Your task to perform on an android device: uninstall "Pandora - Music & Podcasts" Image 0: 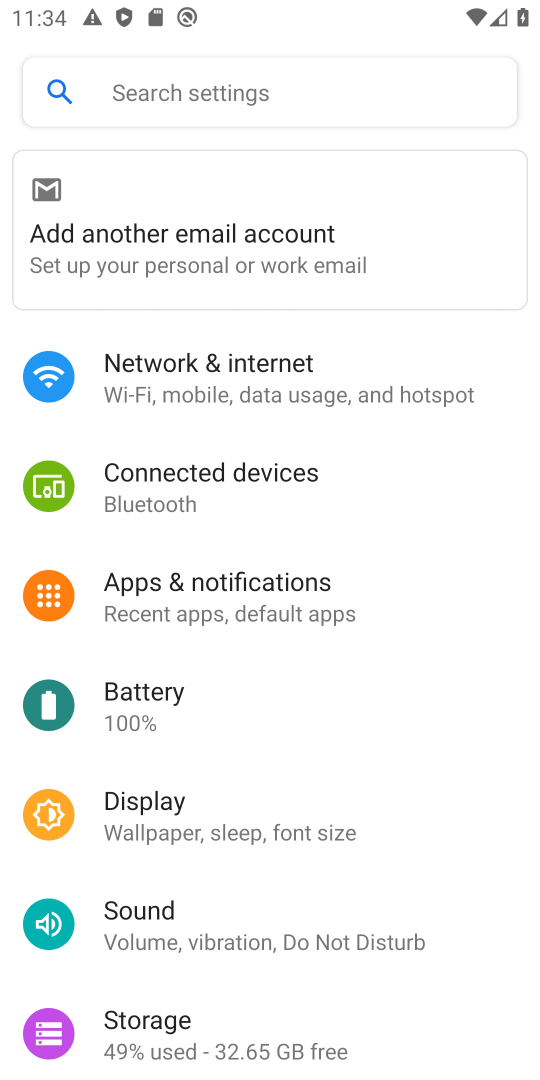
Step 0: press back button
Your task to perform on an android device: uninstall "Pandora - Music & Podcasts" Image 1: 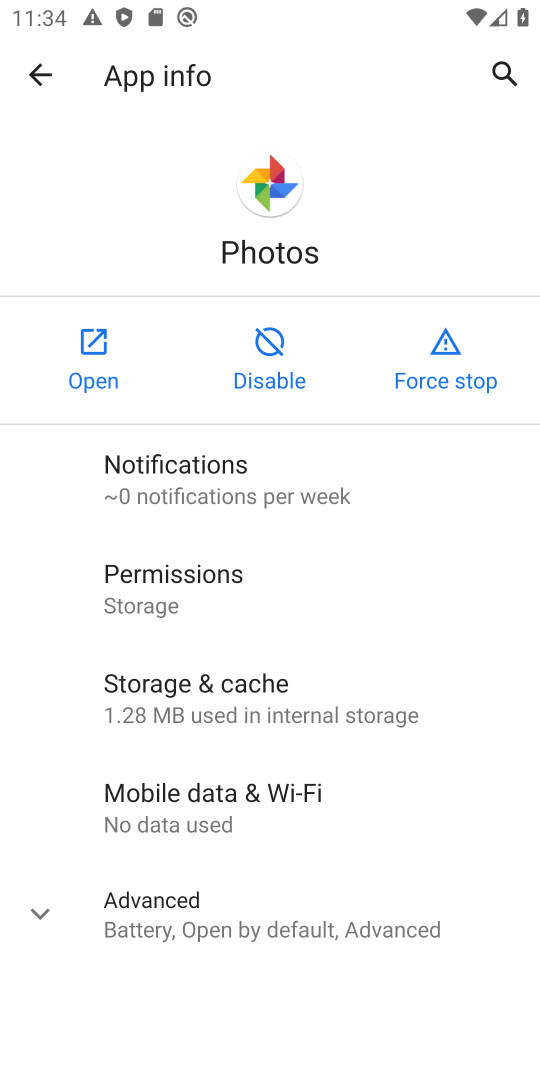
Step 1: press home button
Your task to perform on an android device: uninstall "Pandora - Music & Podcasts" Image 2: 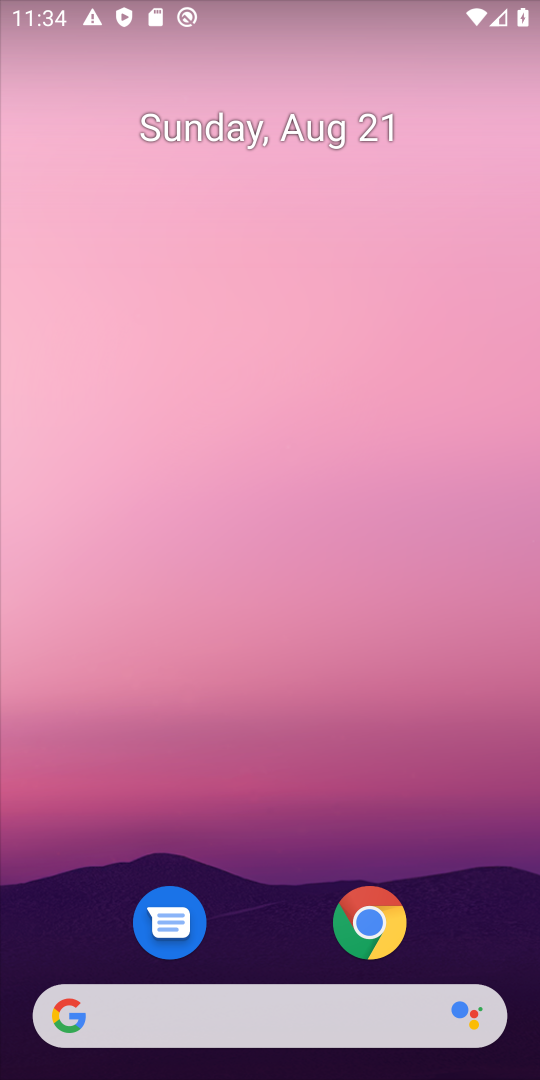
Step 2: drag from (297, 975) to (205, 183)
Your task to perform on an android device: uninstall "Pandora - Music & Podcasts" Image 3: 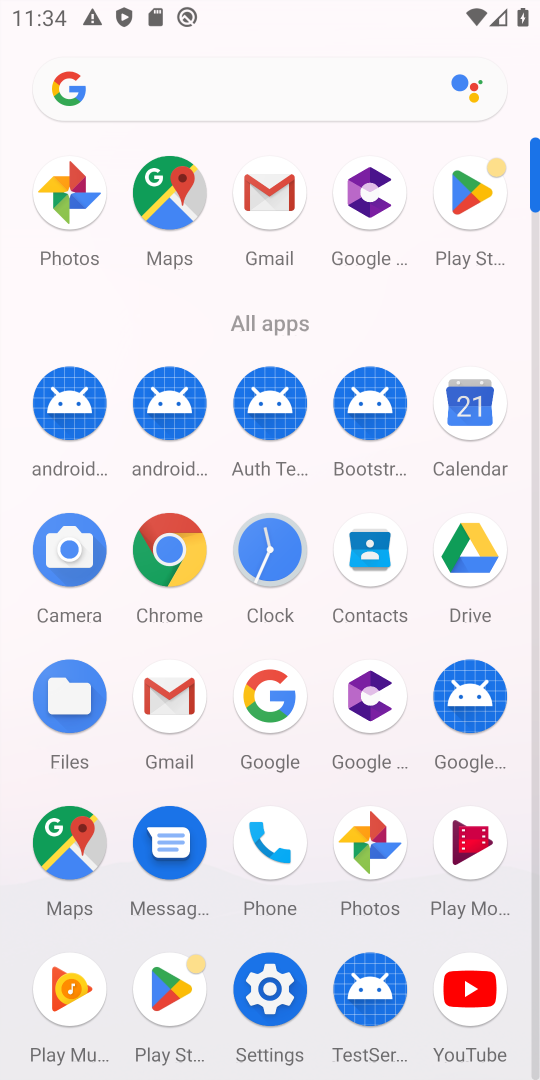
Step 3: click (456, 228)
Your task to perform on an android device: uninstall "Pandora - Music & Podcasts" Image 4: 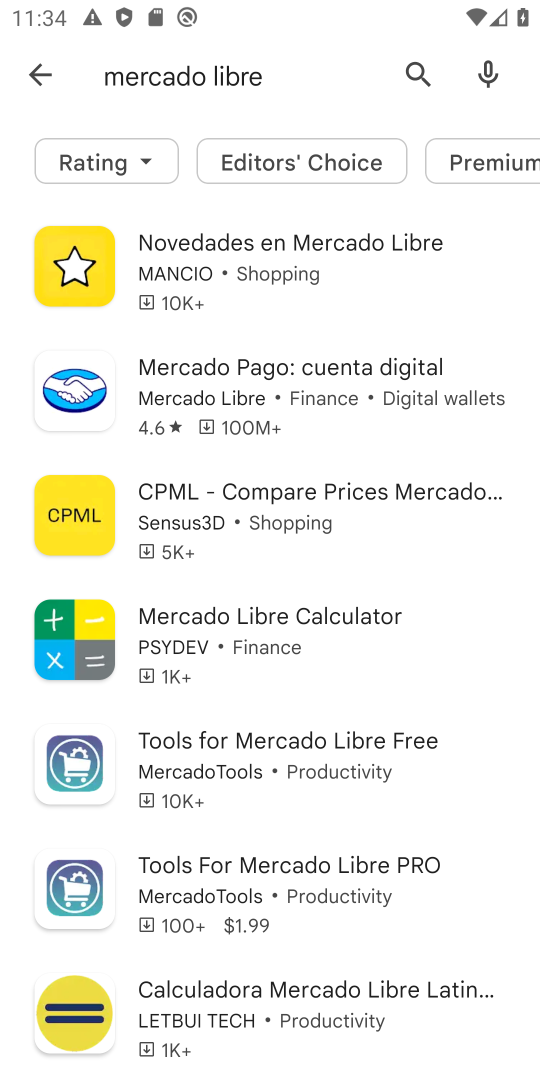
Step 4: click (44, 70)
Your task to perform on an android device: uninstall "Pandora - Music & Podcasts" Image 5: 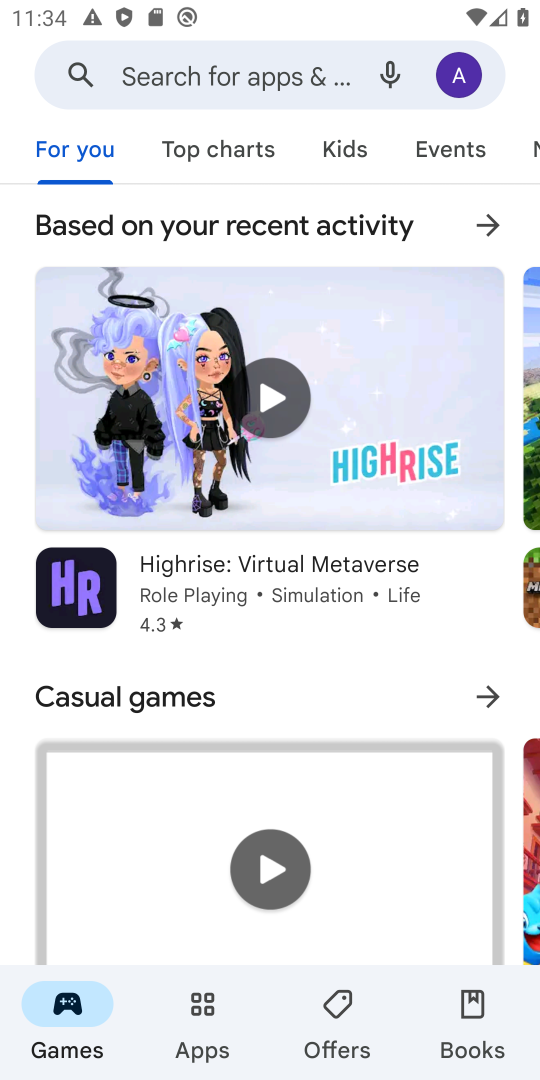
Step 5: click (230, 93)
Your task to perform on an android device: uninstall "Pandora - Music & Podcasts" Image 6: 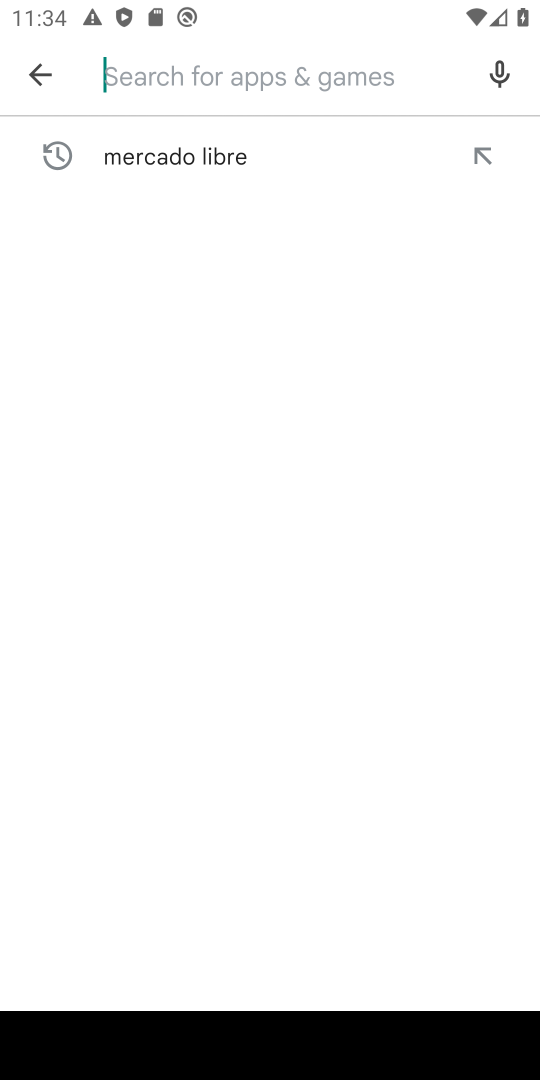
Step 6: type "Pandora - Music & Podcasts"
Your task to perform on an android device: uninstall "Pandora - Music & Podcasts" Image 7: 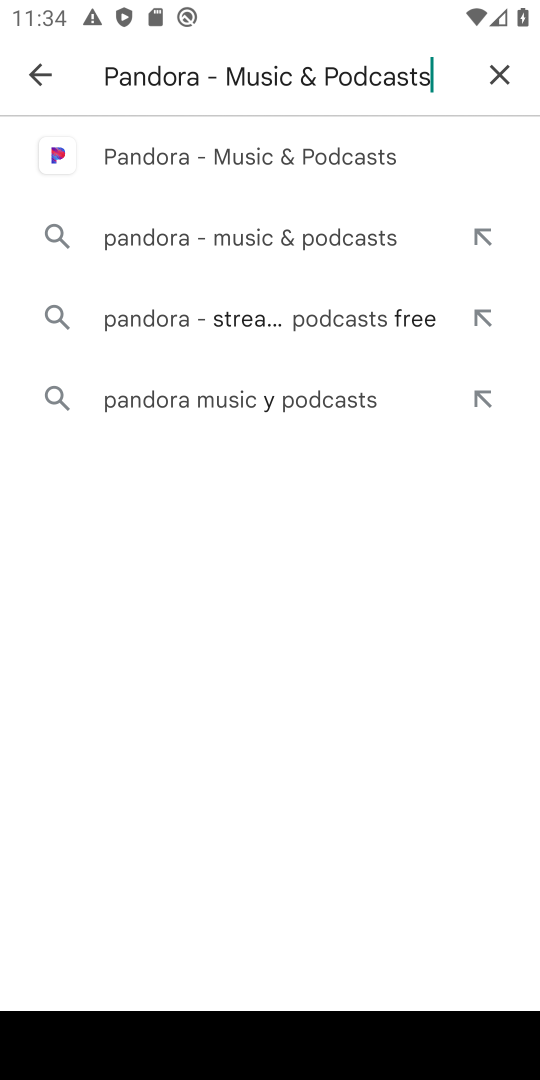
Step 7: click (187, 169)
Your task to perform on an android device: uninstall "Pandora - Music & Podcasts" Image 8: 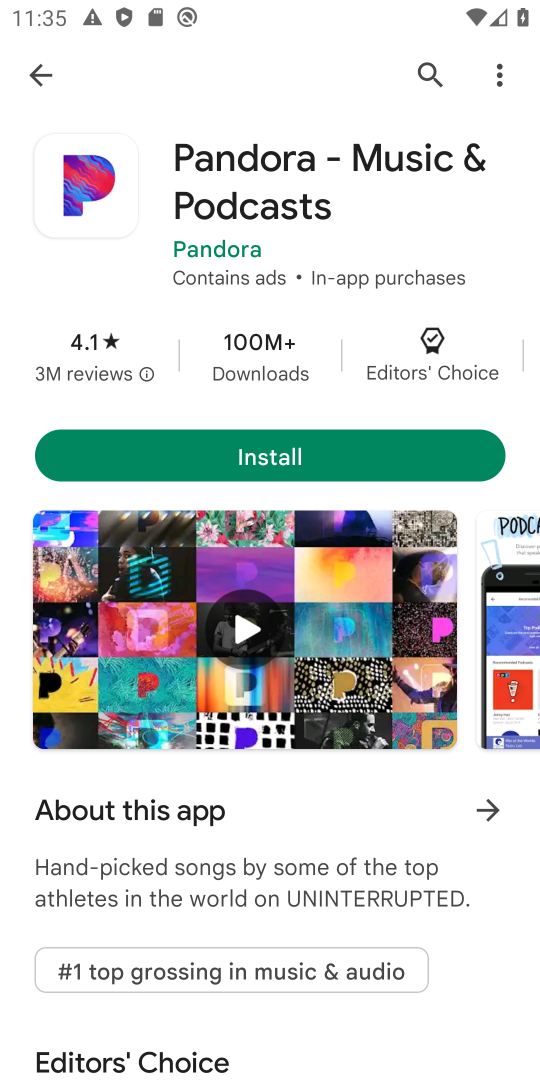
Step 8: task complete